Your task to perform on an android device: clear all cookies in the chrome app Image 0: 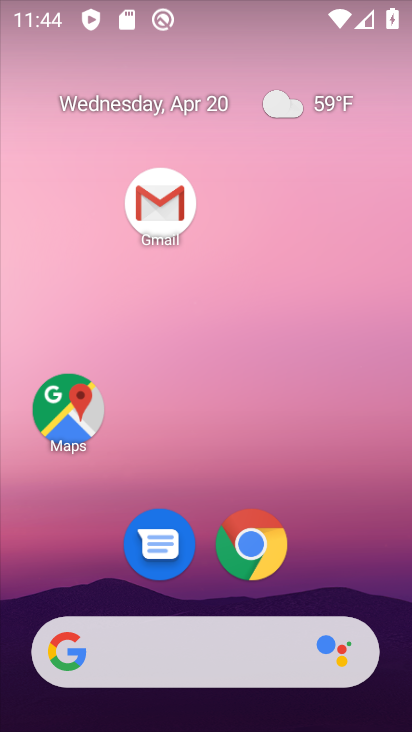
Step 0: click (262, 547)
Your task to perform on an android device: clear all cookies in the chrome app Image 1: 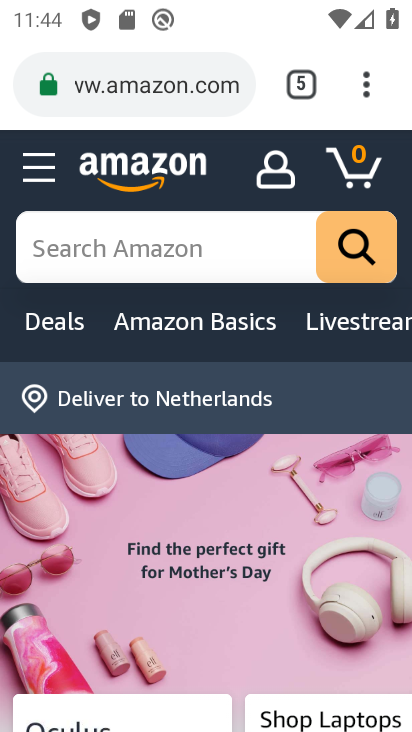
Step 1: click (371, 84)
Your task to perform on an android device: clear all cookies in the chrome app Image 2: 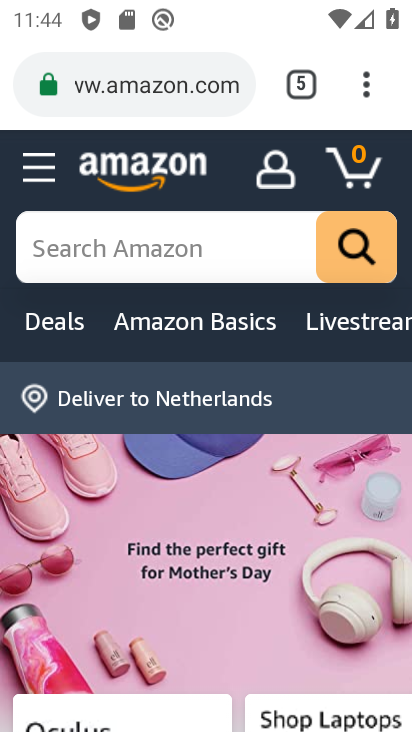
Step 2: click (371, 84)
Your task to perform on an android device: clear all cookies in the chrome app Image 3: 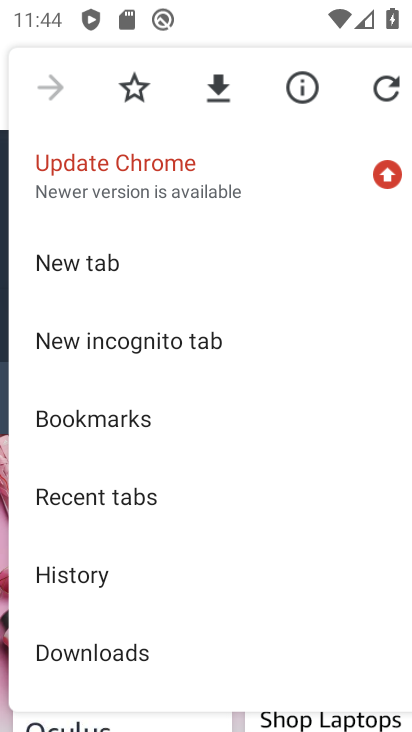
Step 3: drag from (172, 516) to (229, 180)
Your task to perform on an android device: clear all cookies in the chrome app Image 4: 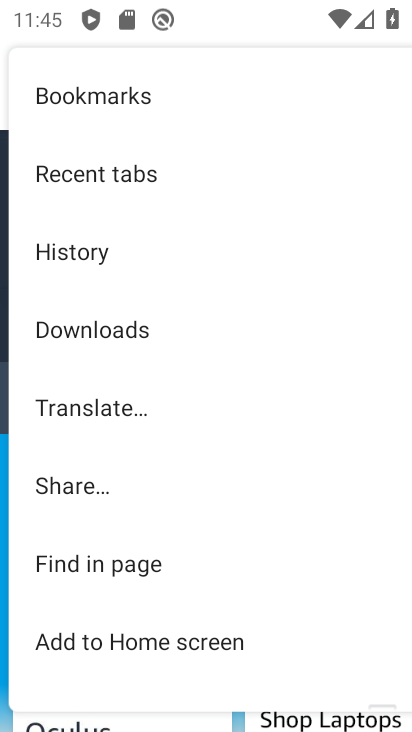
Step 4: drag from (251, 582) to (265, 151)
Your task to perform on an android device: clear all cookies in the chrome app Image 5: 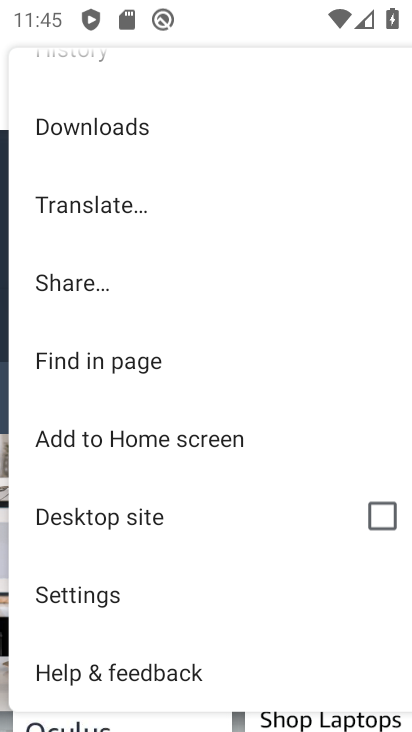
Step 5: click (87, 603)
Your task to perform on an android device: clear all cookies in the chrome app Image 6: 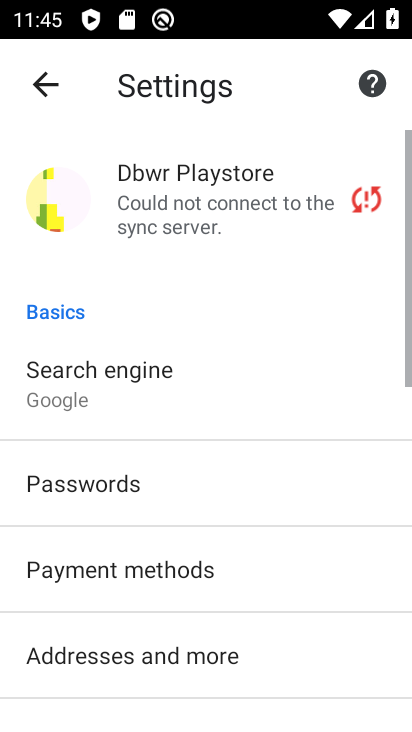
Step 6: drag from (195, 552) to (285, 115)
Your task to perform on an android device: clear all cookies in the chrome app Image 7: 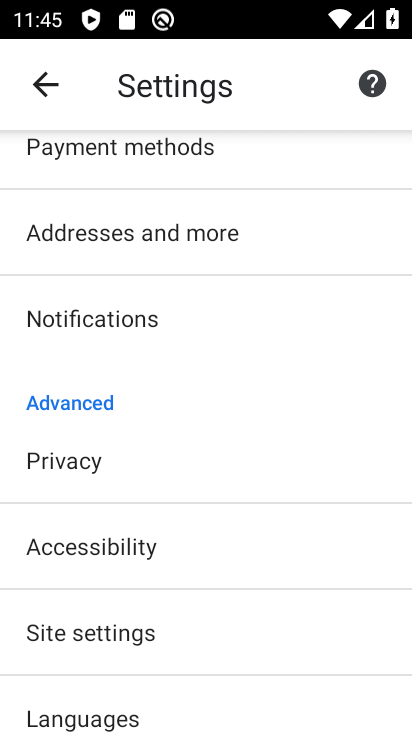
Step 7: click (266, 456)
Your task to perform on an android device: clear all cookies in the chrome app Image 8: 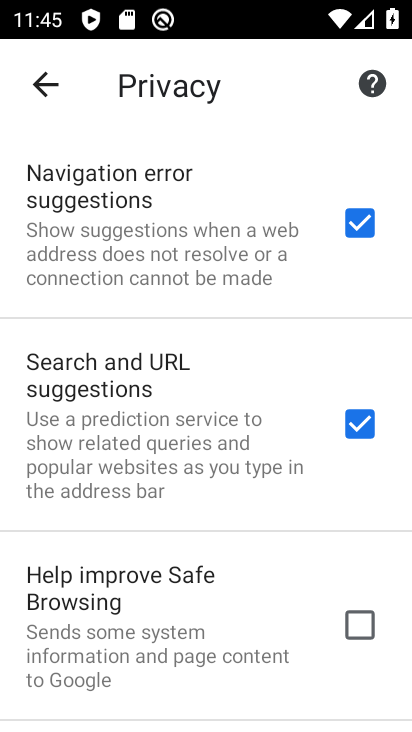
Step 8: drag from (213, 618) to (309, 66)
Your task to perform on an android device: clear all cookies in the chrome app Image 9: 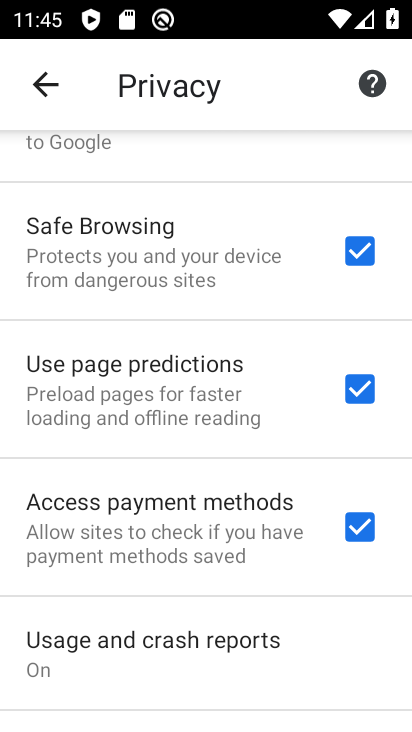
Step 9: drag from (274, 641) to (271, 123)
Your task to perform on an android device: clear all cookies in the chrome app Image 10: 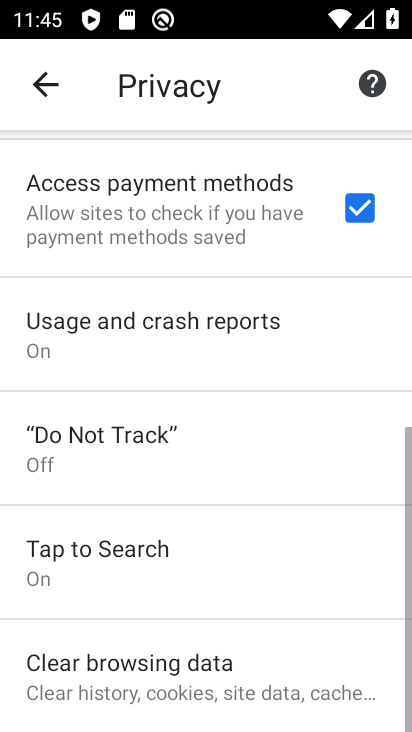
Step 10: drag from (192, 538) to (245, 209)
Your task to perform on an android device: clear all cookies in the chrome app Image 11: 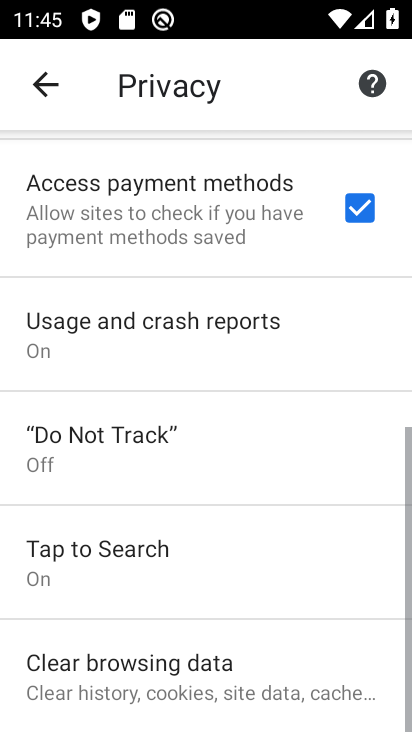
Step 11: click (143, 679)
Your task to perform on an android device: clear all cookies in the chrome app Image 12: 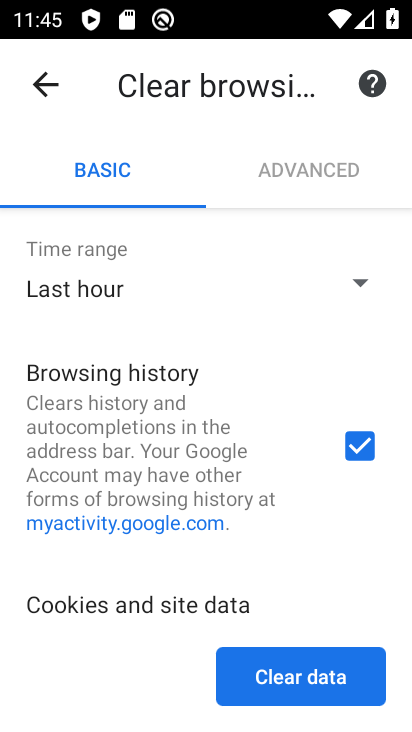
Step 12: drag from (177, 523) to (225, 143)
Your task to perform on an android device: clear all cookies in the chrome app Image 13: 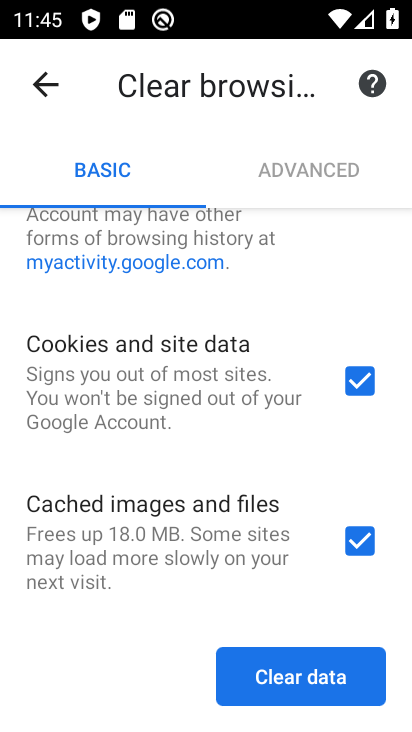
Step 13: click (235, 672)
Your task to perform on an android device: clear all cookies in the chrome app Image 14: 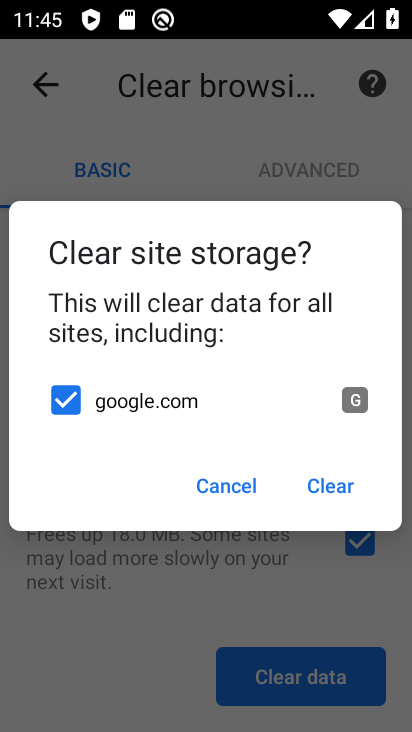
Step 14: click (360, 486)
Your task to perform on an android device: clear all cookies in the chrome app Image 15: 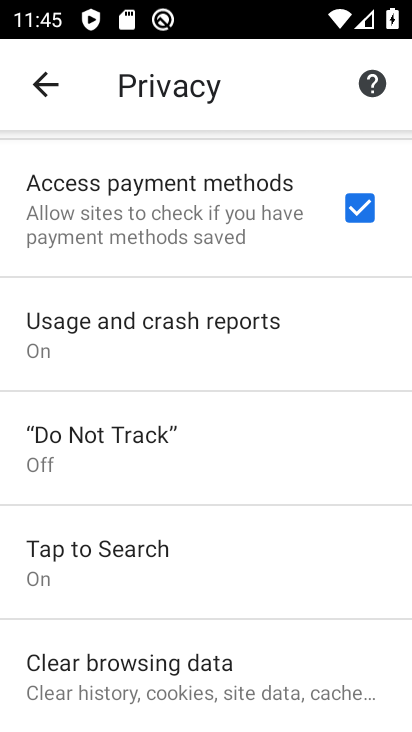
Step 15: task complete